Your task to perform on an android device: Go to Wikipedia Image 0: 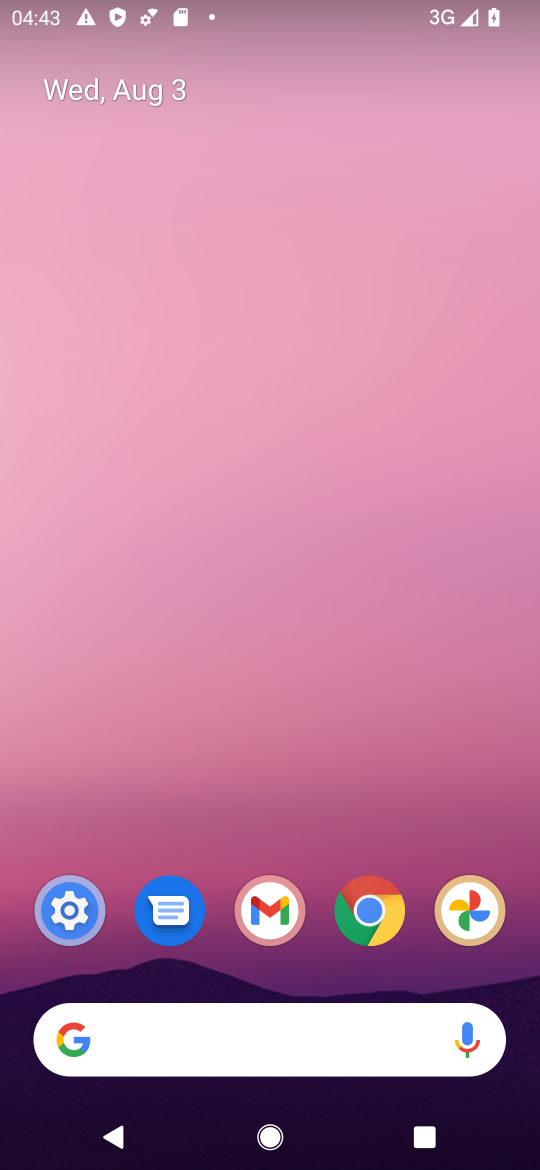
Step 0: click (365, 905)
Your task to perform on an android device: Go to Wikipedia Image 1: 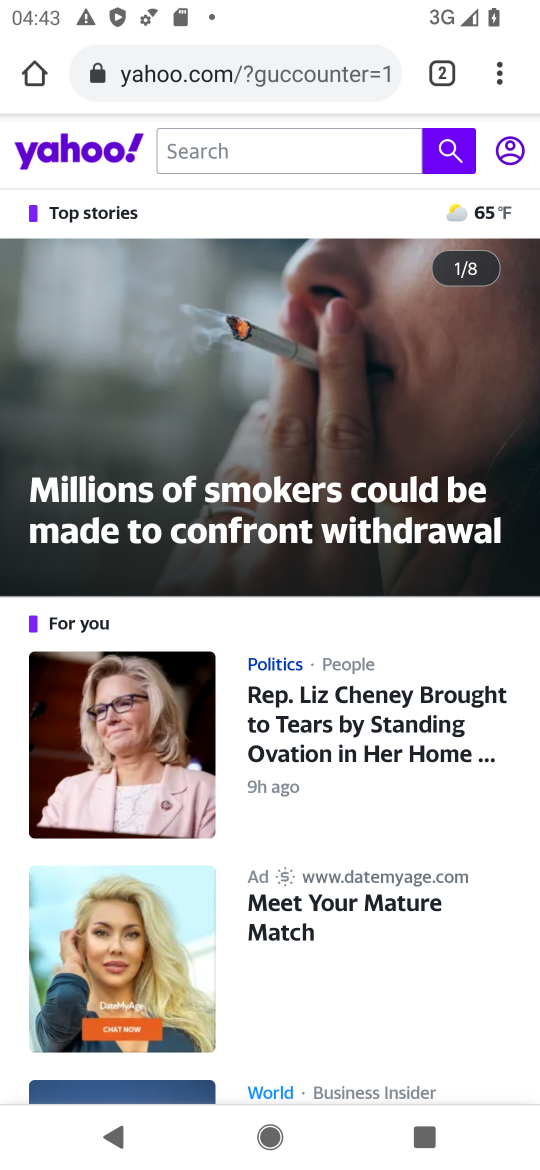
Step 1: click (446, 70)
Your task to perform on an android device: Go to Wikipedia Image 2: 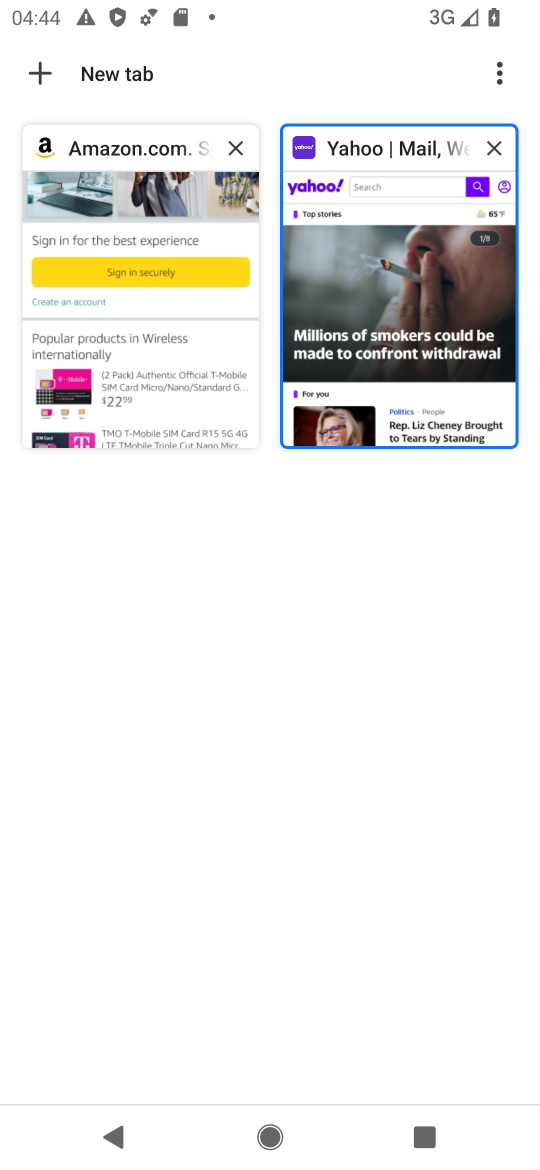
Step 2: click (40, 63)
Your task to perform on an android device: Go to Wikipedia Image 3: 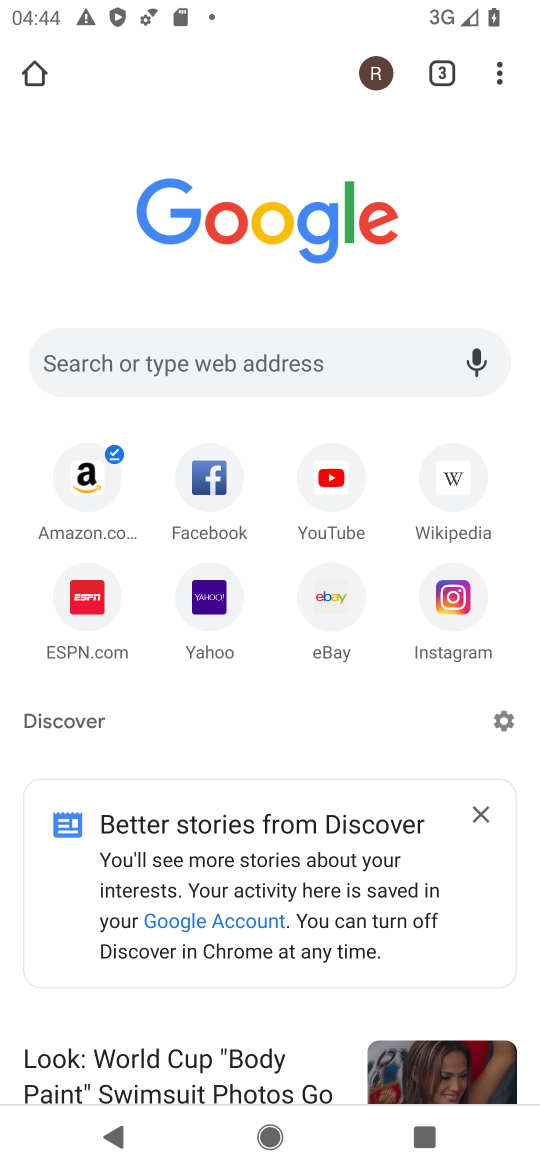
Step 3: click (451, 471)
Your task to perform on an android device: Go to Wikipedia Image 4: 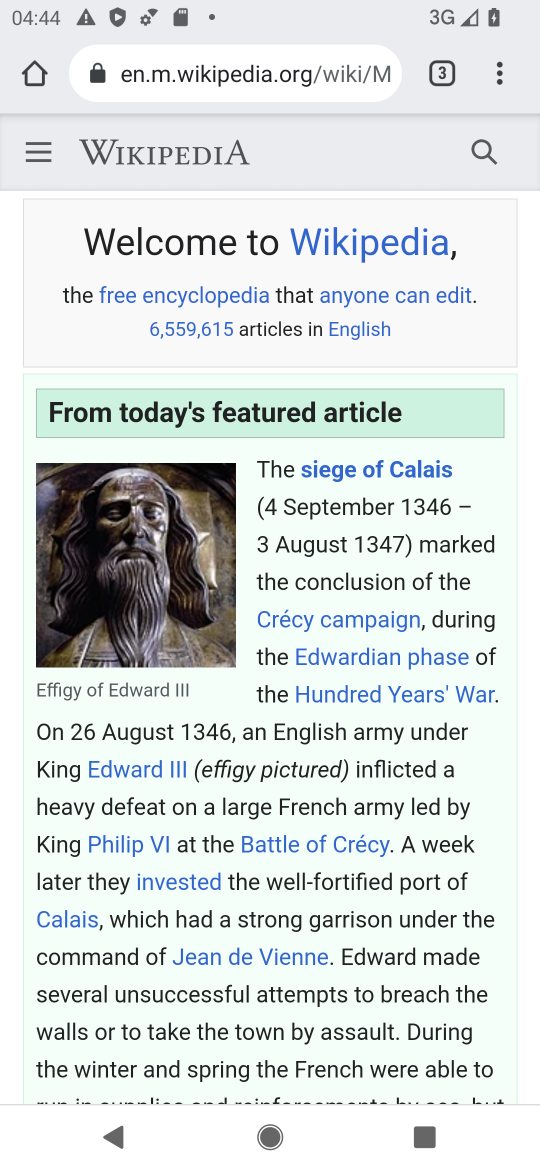
Step 4: task complete